Your task to perform on an android device: Turn on the flashlight Image 0: 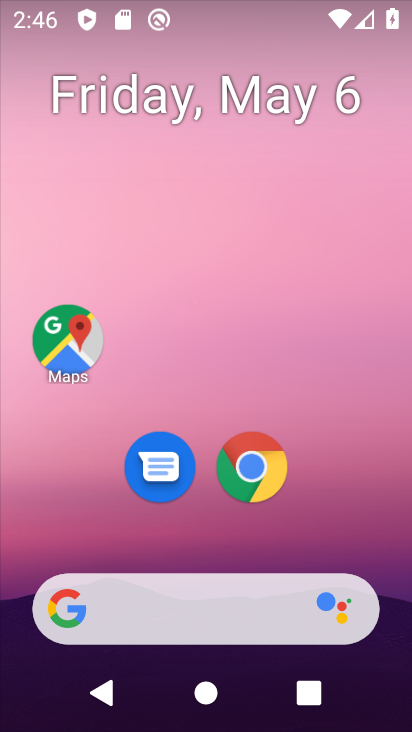
Step 0: task impossible